Your task to perform on an android device: Go to internet settings Image 0: 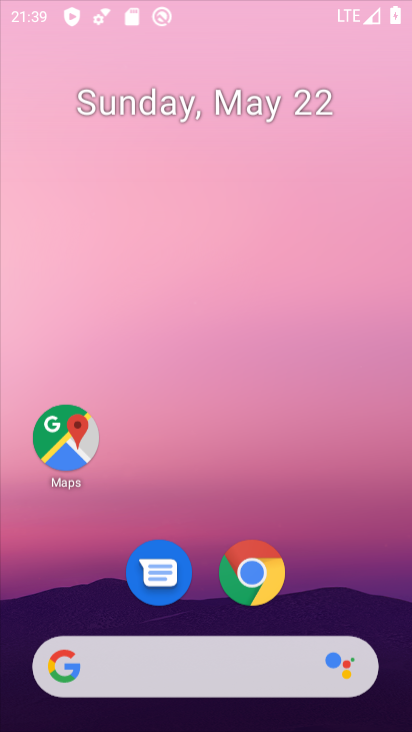
Step 0: press home button
Your task to perform on an android device: Go to internet settings Image 1: 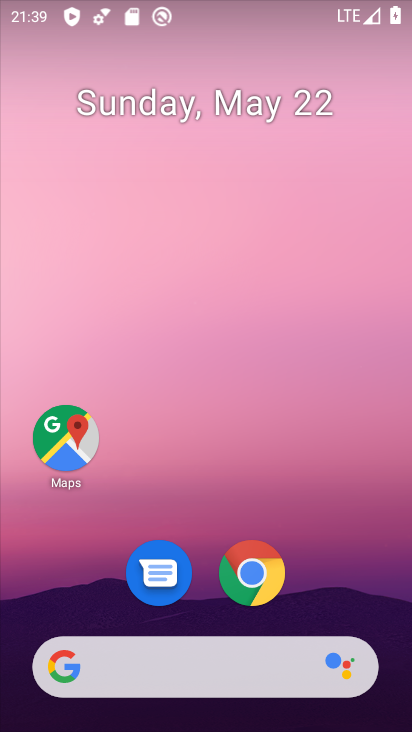
Step 1: drag from (351, 580) to (351, 0)
Your task to perform on an android device: Go to internet settings Image 2: 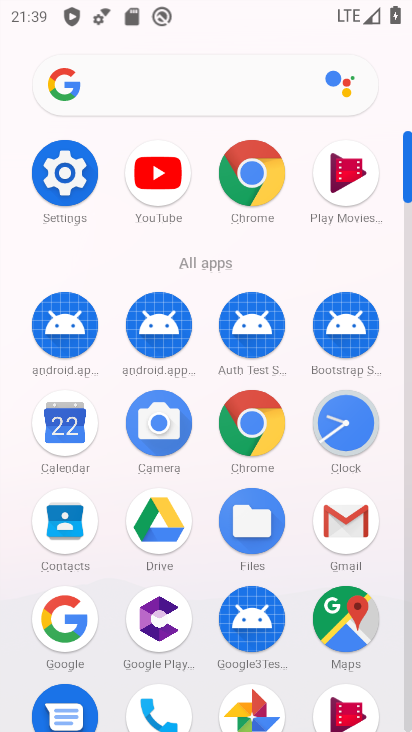
Step 2: click (63, 185)
Your task to perform on an android device: Go to internet settings Image 3: 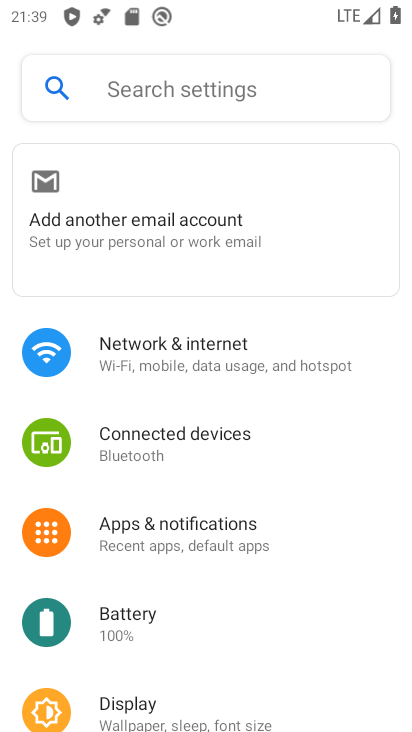
Step 3: click (66, 360)
Your task to perform on an android device: Go to internet settings Image 4: 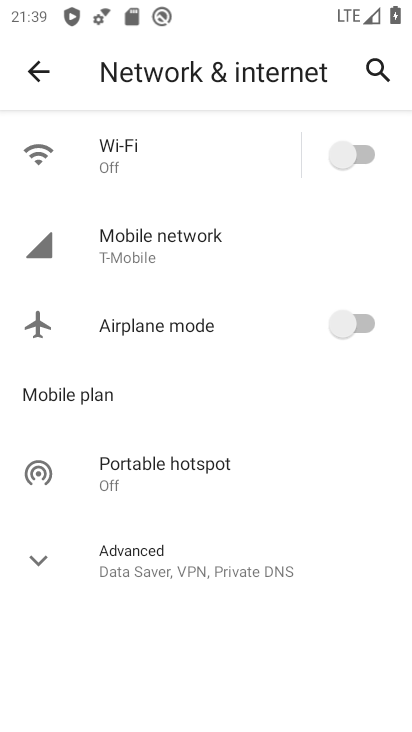
Step 4: task complete